Your task to perform on an android device: open wifi settings Image 0: 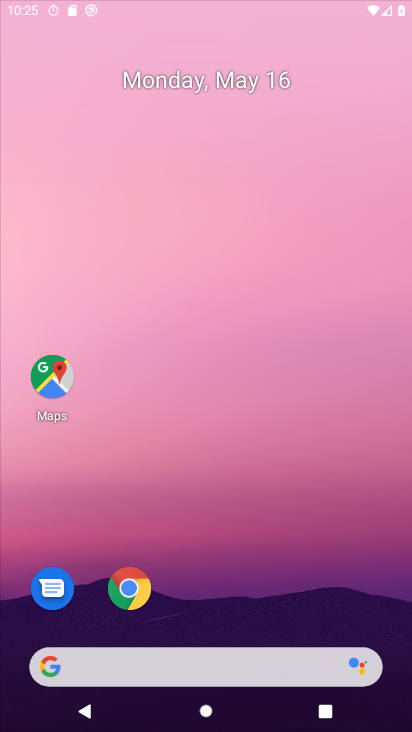
Step 0: press home button
Your task to perform on an android device: open wifi settings Image 1: 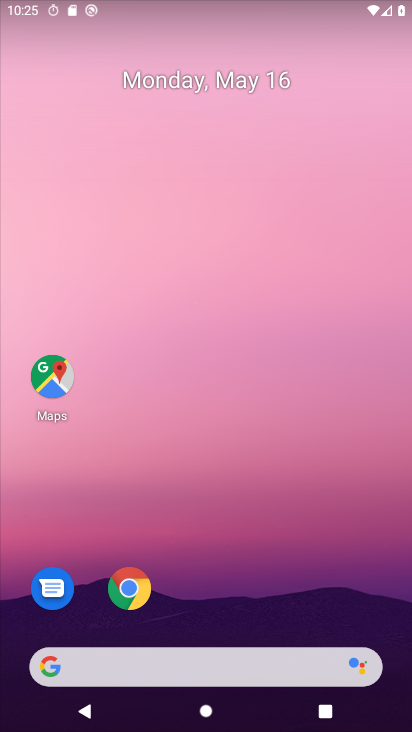
Step 1: drag from (224, 574) to (260, 123)
Your task to perform on an android device: open wifi settings Image 2: 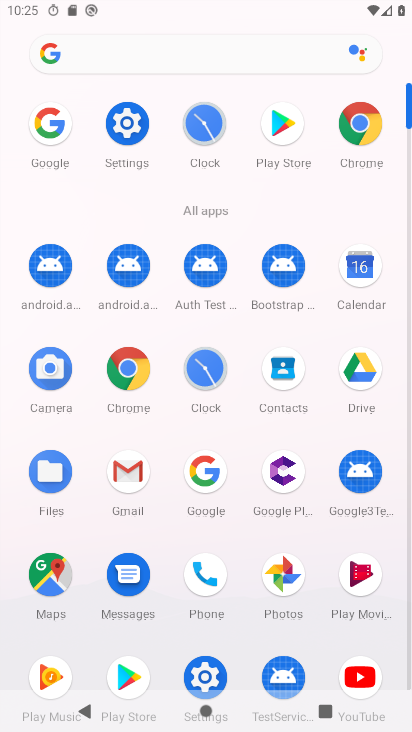
Step 2: click (132, 123)
Your task to perform on an android device: open wifi settings Image 3: 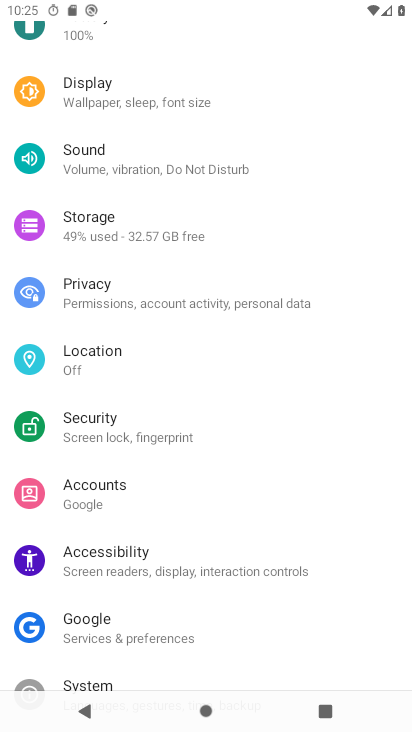
Step 3: drag from (143, 91) to (220, 723)
Your task to perform on an android device: open wifi settings Image 4: 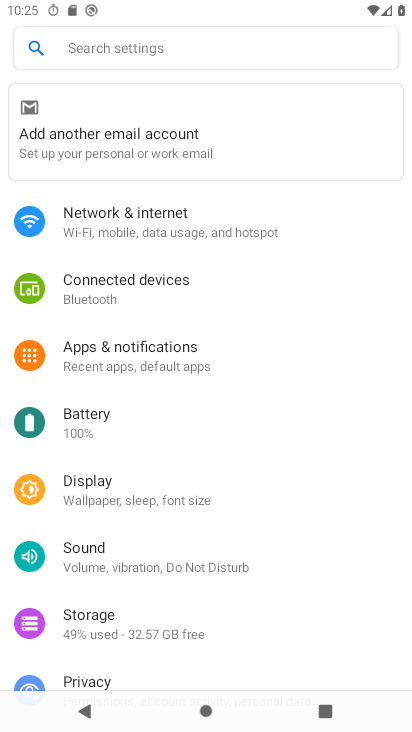
Step 4: click (158, 222)
Your task to perform on an android device: open wifi settings Image 5: 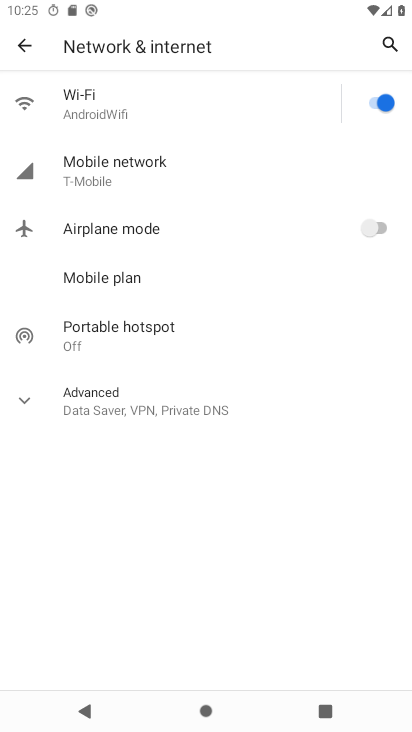
Step 5: click (137, 103)
Your task to perform on an android device: open wifi settings Image 6: 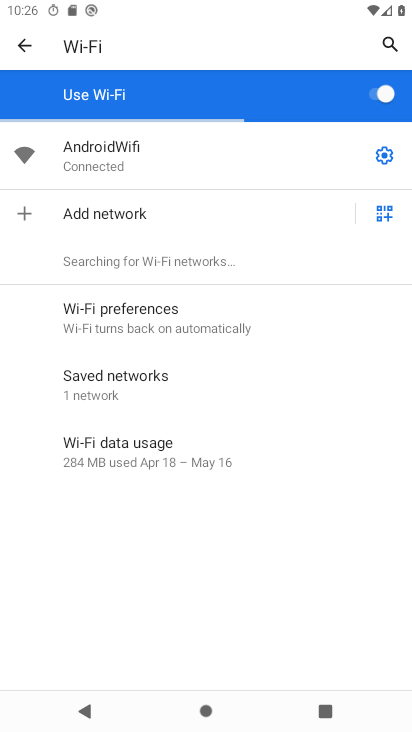
Step 6: task complete